Your task to perform on an android device: set default search engine in the chrome app Image 0: 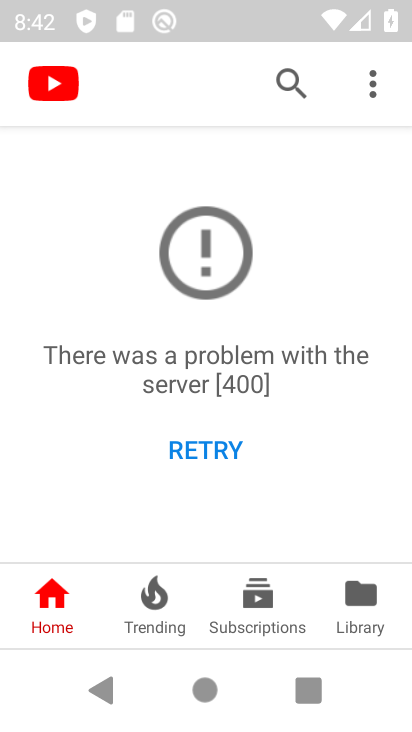
Step 0: press home button
Your task to perform on an android device: set default search engine in the chrome app Image 1: 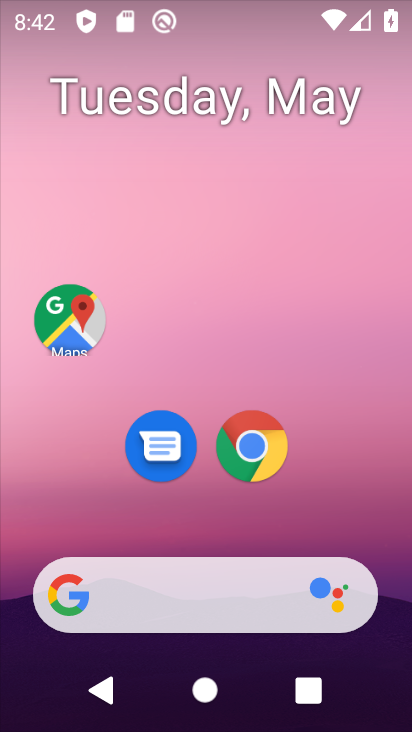
Step 1: drag from (391, 551) to (374, 269)
Your task to perform on an android device: set default search engine in the chrome app Image 2: 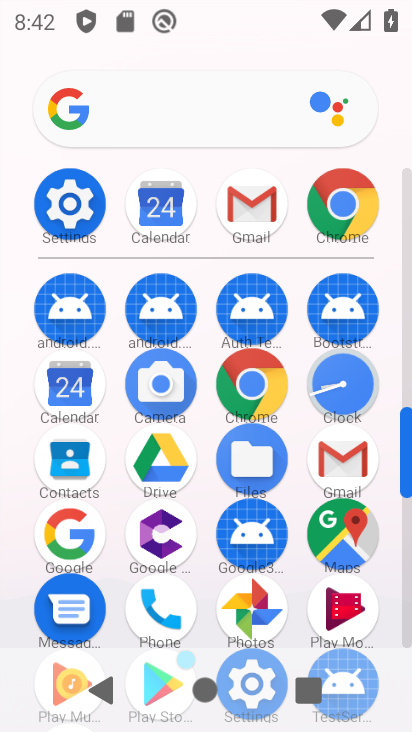
Step 2: click (265, 397)
Your task to perform on an android device: set default search engine in the chrome app Image 3: 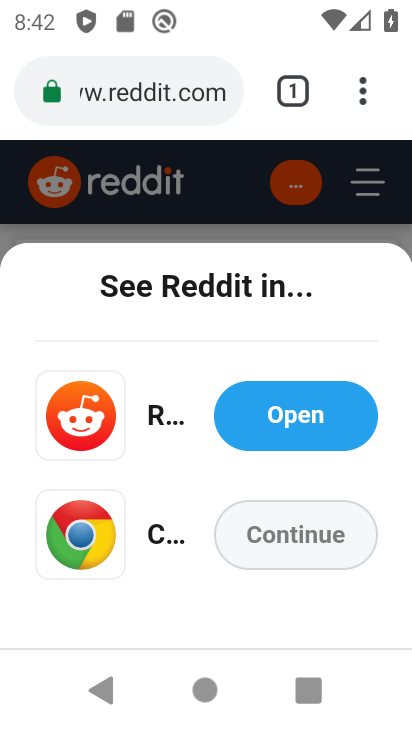
Step 3: click (363, 103)
Your task to perform on an android device: set default search engine in the chrome app Image 4: 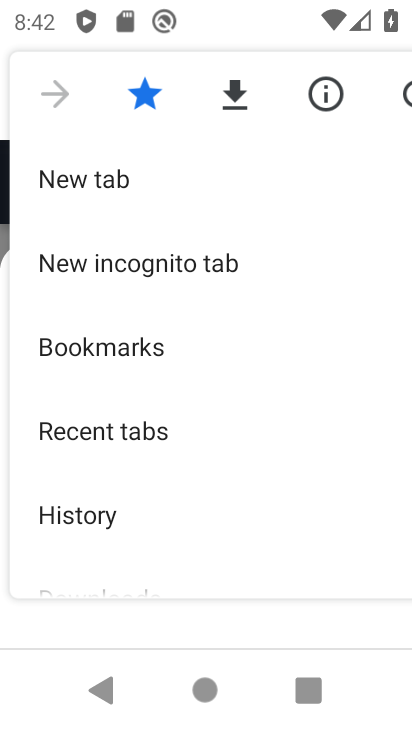
Step 4: drag from (331, 456) to (337, 370)
Your task to perform on an android device: set default search engine in the chrome app Image 5: 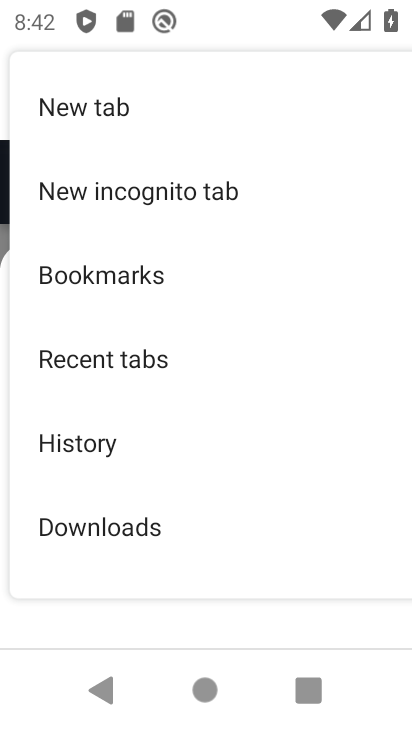
Step 5: drag from (326, 501) to (343, 415)
Your task to perform on an android device: set default search engine in the chrome app Image 6: 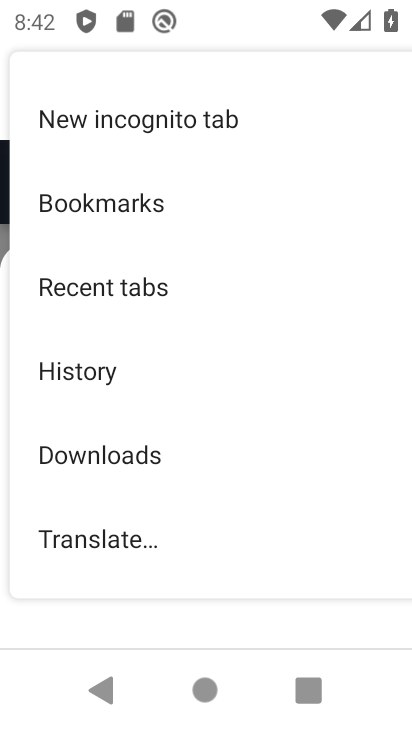
Step 6: drag from (319, 528) to (323, 432)
Your task to perform on an android device: set default search engine in the chrome app Image 7: 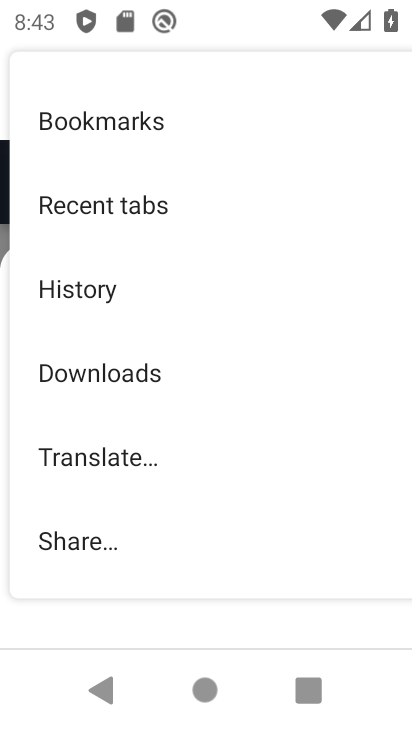
Step 7: drag from (311, 533) to (321, 441)
Your task to perform on an android device: set default search engine in the chrome app Image 8: 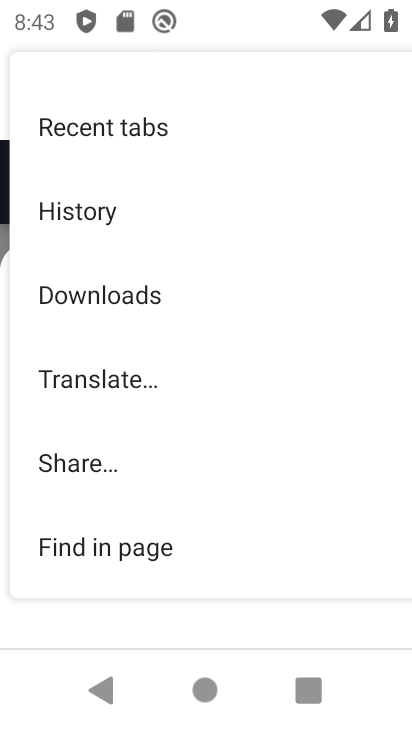
Step 8: drag from (334, 563) to (336, 450)
Your task to perform on an android device: set default search engine in the chrome app Image 9: 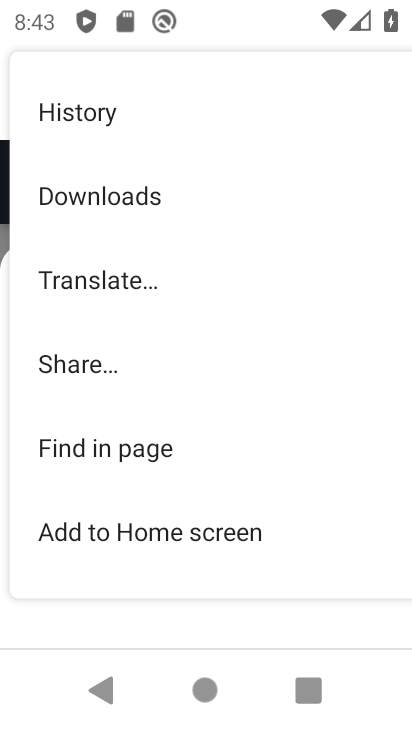
Step 9: drag from (340, 547) to (347, 408)
Your task to perform on an android device: set default search engine in the chrome app Image 10: 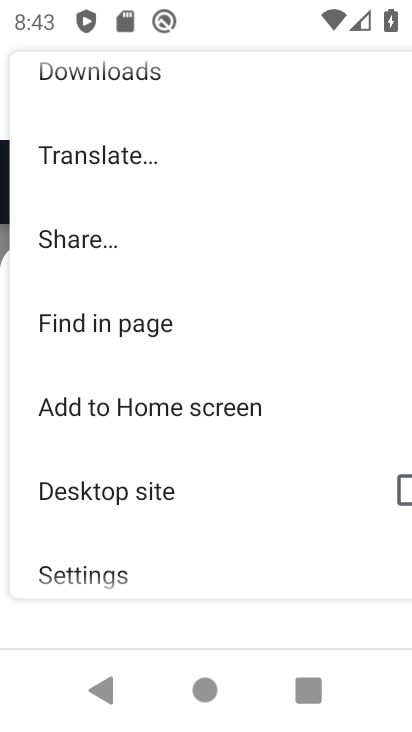
Step 10: drag from (318, 277) to (322, 344)
Your task to perform on an android device: set default search engine in the chrome app Image 11: 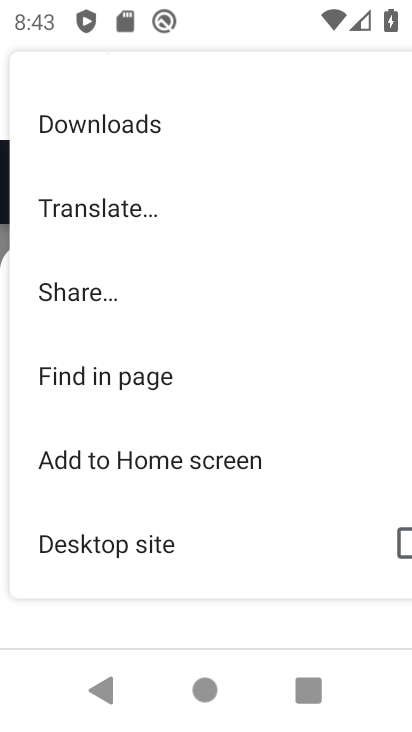
Step 11: drag from (340, 159) to (339, 287)
Your task to perform on an android device: set default search engine in the chrome app Image 12: 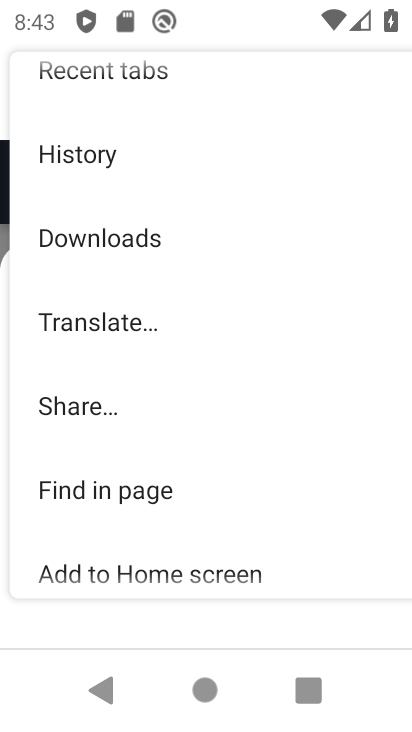
Step 12: drag from (355, 176) to (361, 297)
Your task to perform on an android device: set default search engine in the chrome app Image 13: 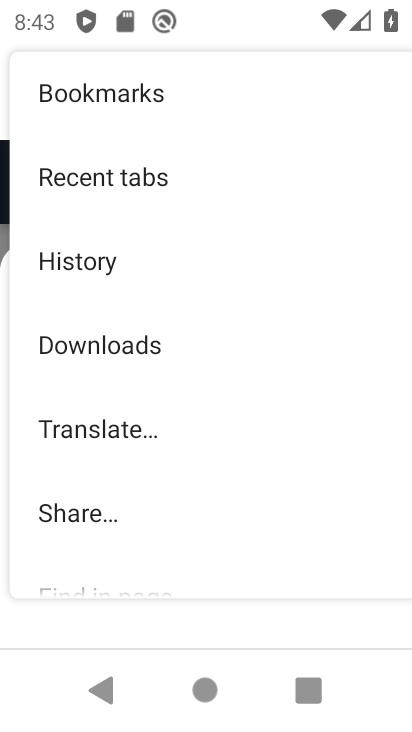
Step 13: drag from (347, 153) to (344, 287)
Your task to perform on an android device: set default search engine in the chrome app Image 14: 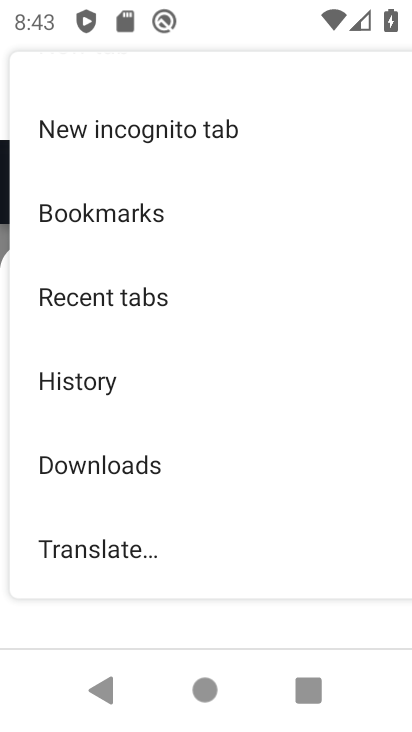
Step 14: drag from (330, 452) to (342, 341)
Your task to perform on an android device: set default search engine in the chrome app Image 15: 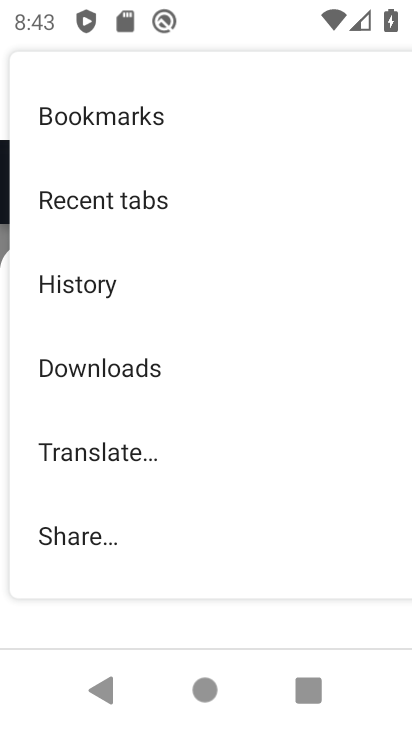
Step 15: drag from (331, 496) to (331, 395)
Your task to perform on an android device: set default search engine in the chrome app Image 16: 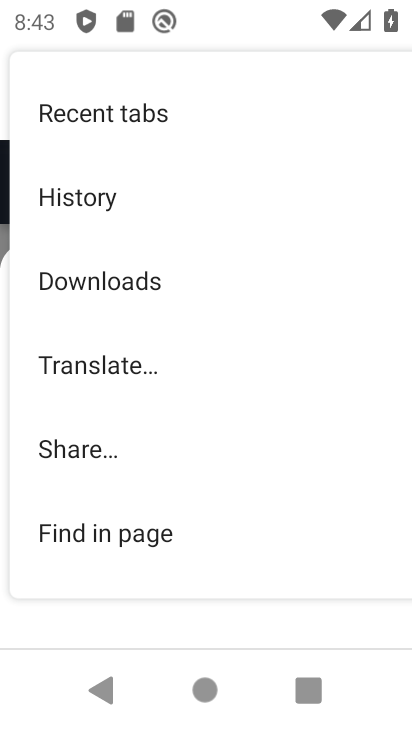
Step 16: drag from (323, 509) to (329, 403)
Your task to perform on an android device: set default search engine in the chrome app Image 17: 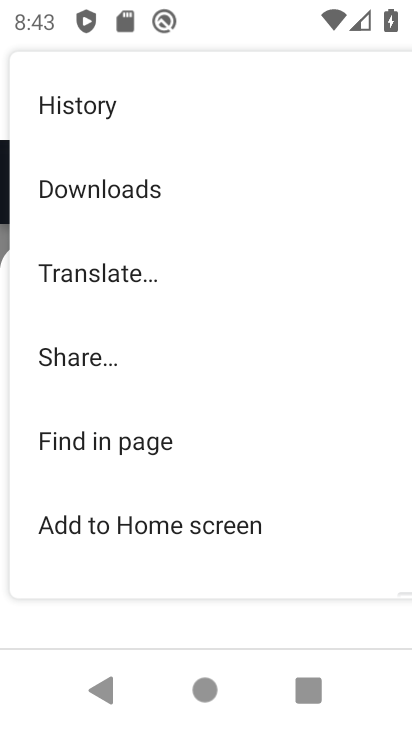
Step 17: drag from (338, 493) to (347, 395)
Your task to perform on an android device: set default search engine in the chrome app Image 18: 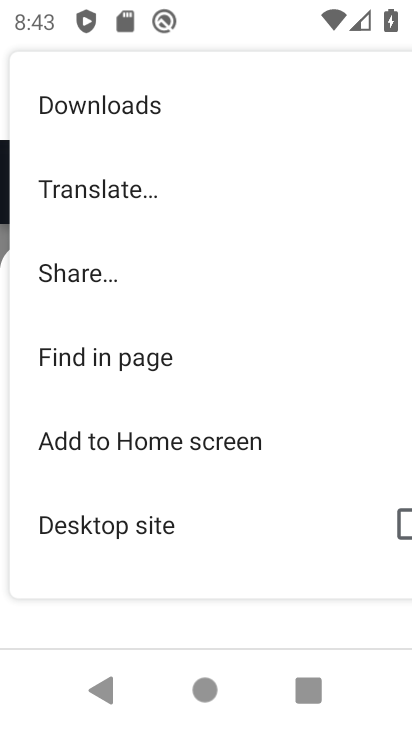
Step 18: drag from (322, 512) to (324, 398)
Your task to perform on an android device: set default search engine in the chrome app Image 19: 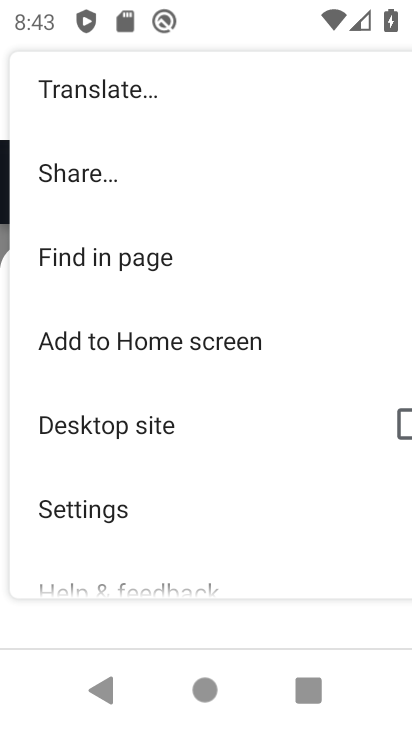
Step 19: click (271, 509)
Your task to perform on an android device: set default search engine in the chrome app Image 20: 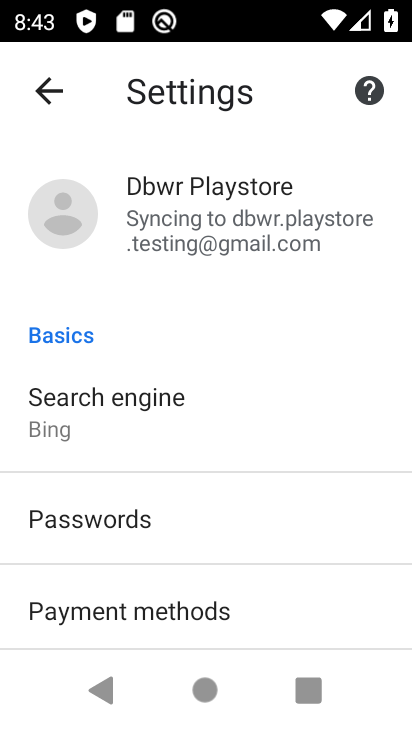
Step 20: click (216, 452)
Your task to perform on an android device: set default search engine in the chrome app Image 21: 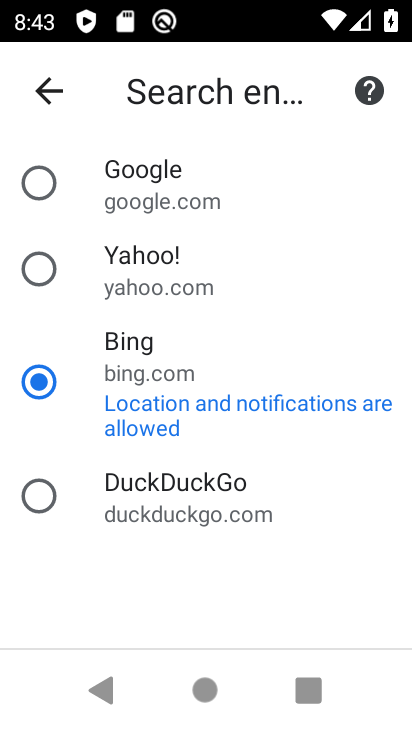
Step 21: click (157, 176)
Your task to perform on an android device: set default search engine in the chrome app Image 22: 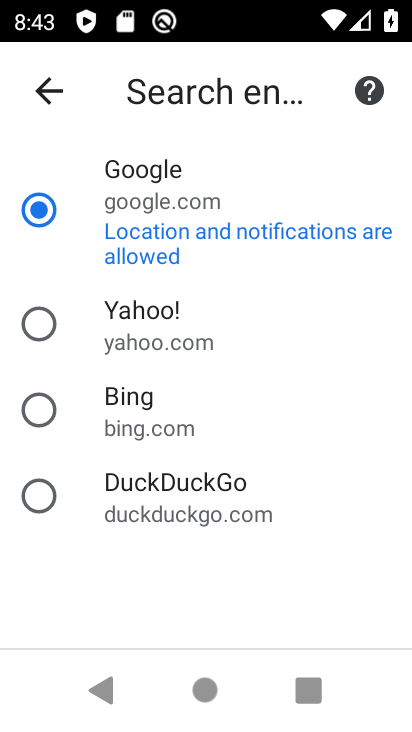
Step 22: task complete